Your task to perform on an android device: Do I have any events tomorrow? Image 0: 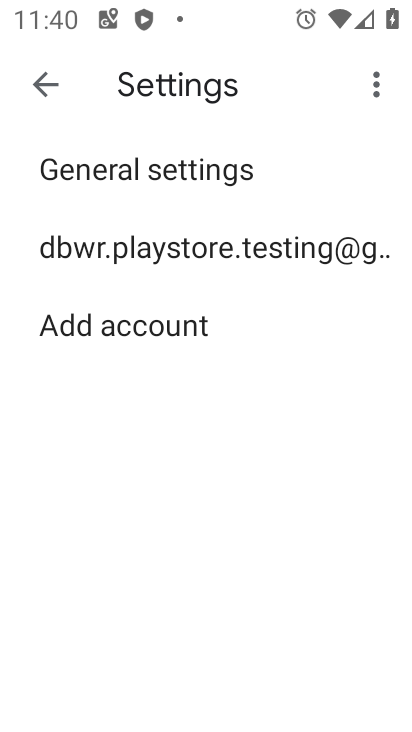
Step 0: press home button
Your task to perform on an android device: Do I have any events tomorrow? Image 1: 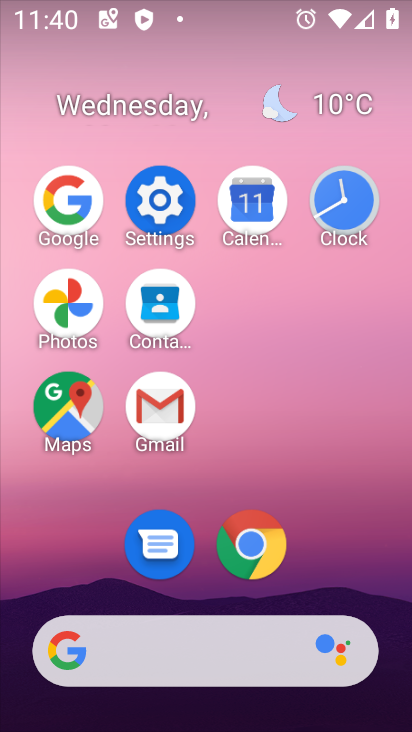
Step 1: click (247, 211)
Your task to perform on an android device: Do I have any events tomorrow? Image 2: 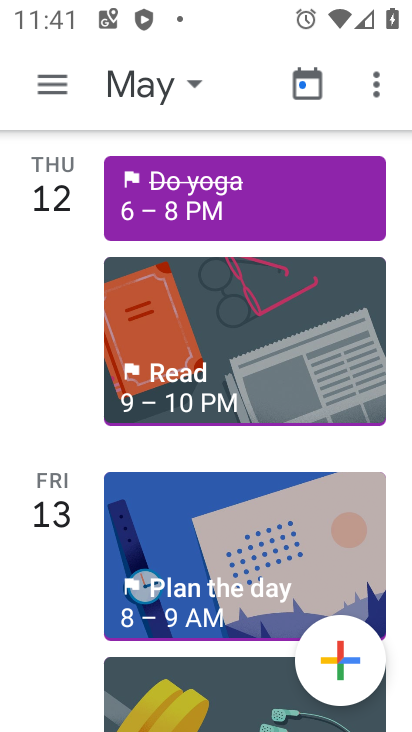
Step 2: click (242, 492)
Your task to perform on an android device: Do I have any events tomorrow? Image 3: 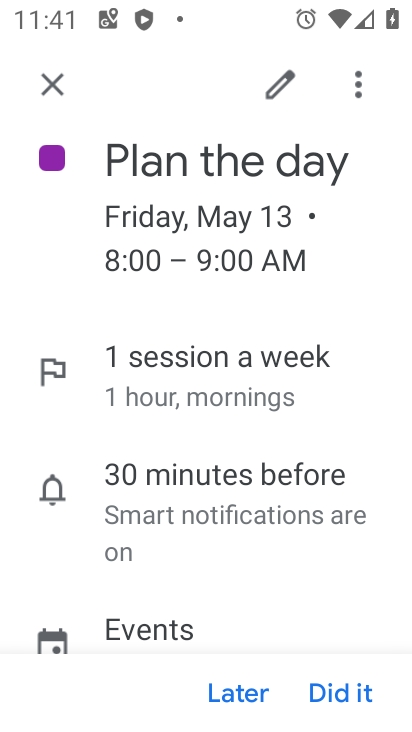
Step 3: task complete